Your task to perform on an android device: turn on airplane mode Image 0: 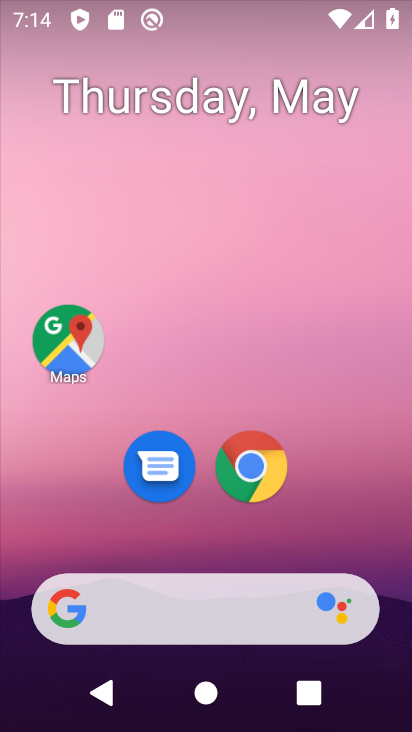
Step 0: drag from (335, 485) to (242, 56)
Your task to perform on an android device: turn on airplane mode Image 1: 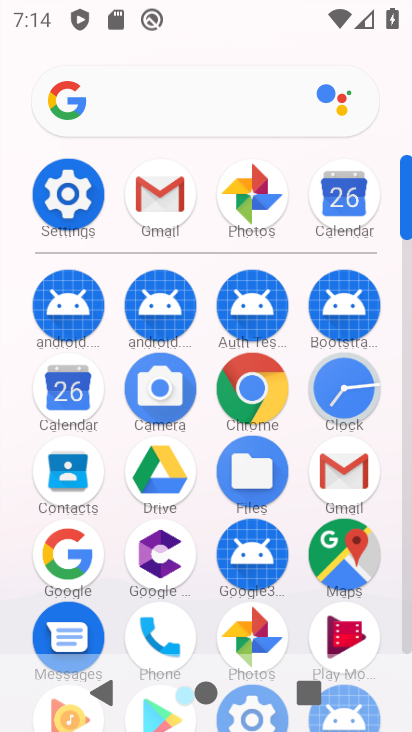
Step 1: click (68, 192)
Your task to perform on an android device: turn on airplane mode Image 2: 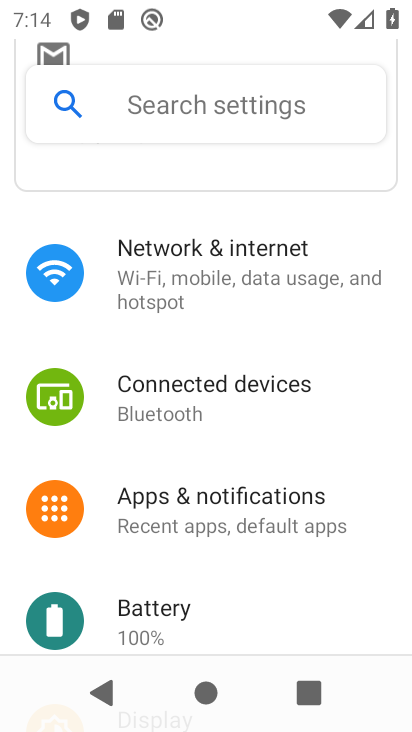
Step 2: click (177, 253)
Your task to perform on an android device: turn on airplane mode Image 3: 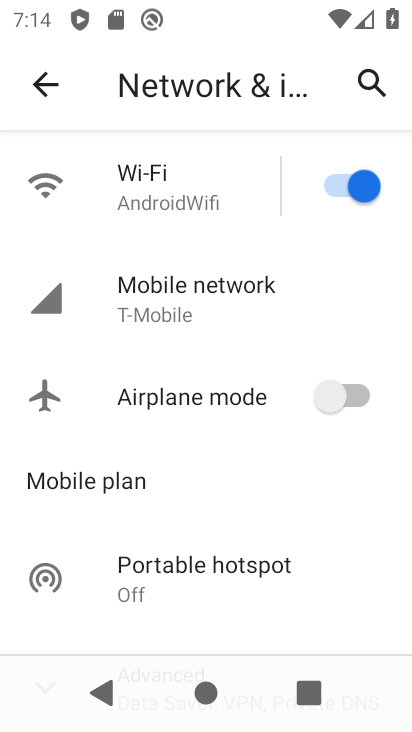
Step 3: click (339, 390)
Your task to perform on an android device: turn on airplane mode Image 4: 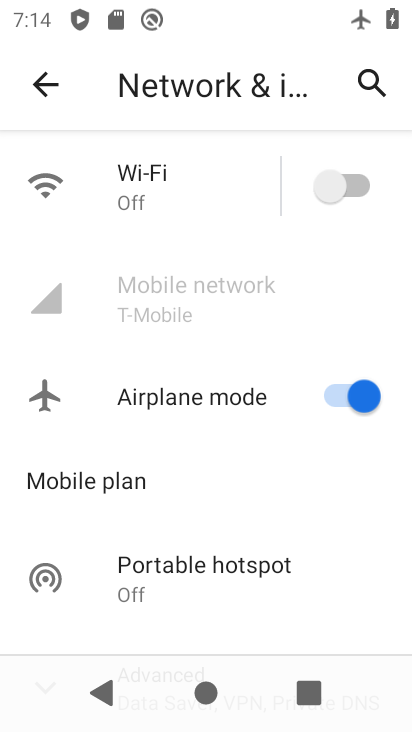
Step 4: task complete